Your task to perform on an android device: Go to battery settings Image 0: 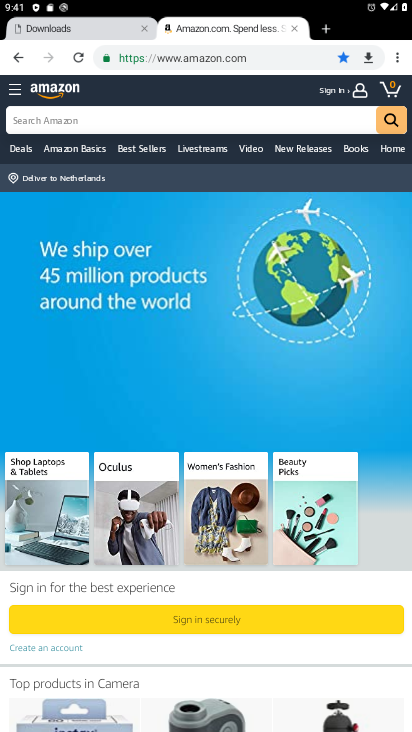
Step 0: press home button
Your task to perform on an android device: Go to battery settings Image 1: 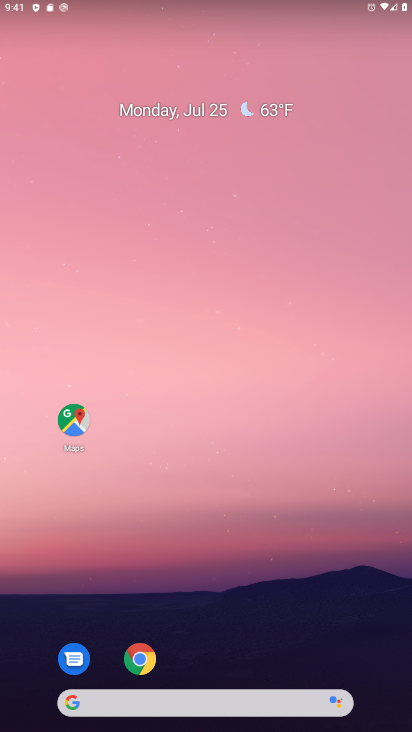
Step 1: drag from (203, 715) to (220, 337)
Your task to perform on an android device: Go to battery settings Image 2: 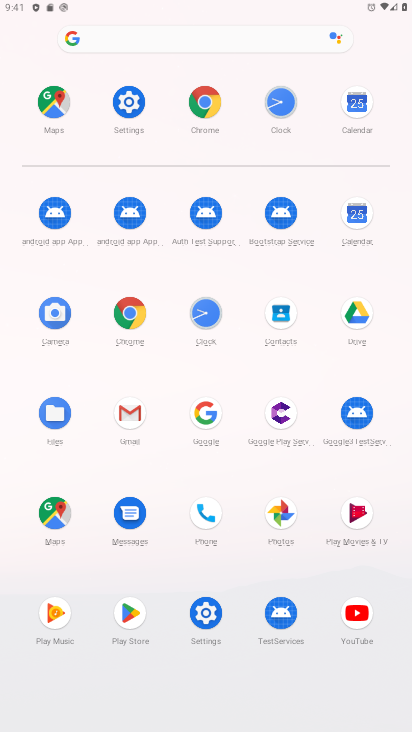
Step 2: click (130, 104)
Your task to perform on an android device: Go to battery settings Image 3: 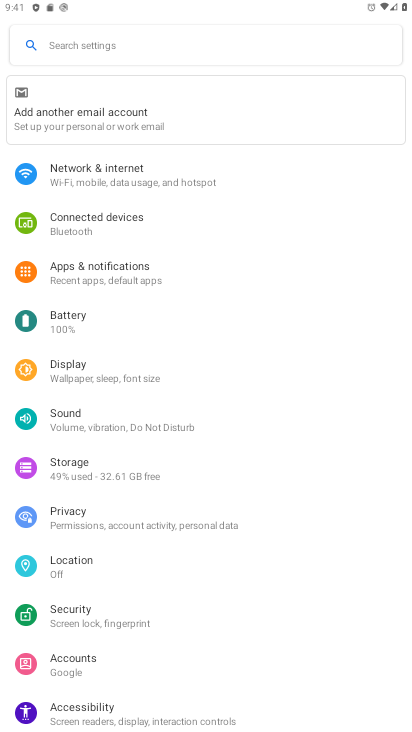
Step 3: click (53, 316)
Your task to perform on an android device: Go to battery settings Image 4: 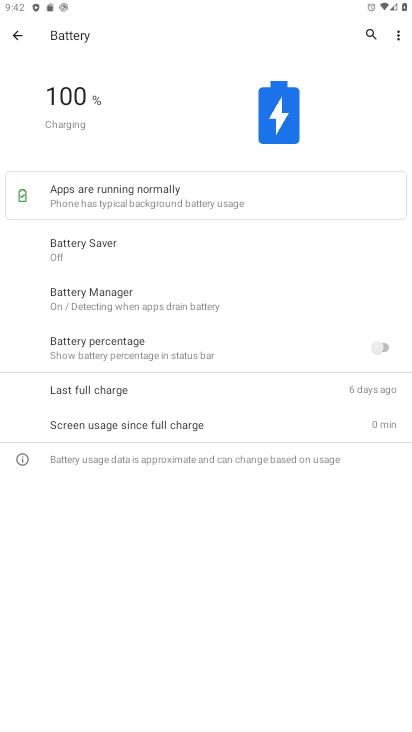
Step 4: task complete